Your task to perform on an android device: Toggle the flashlight Image 0: 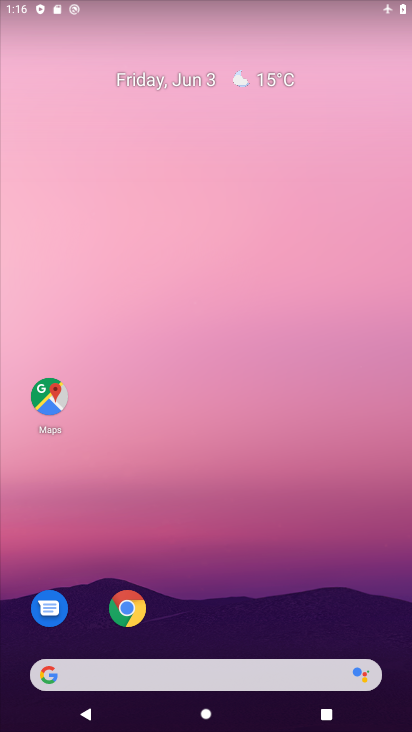
Step 0: drag from (278, 568) to (173, 136)
Your task to perform on an android device: Toggle the flashlight Image 1: 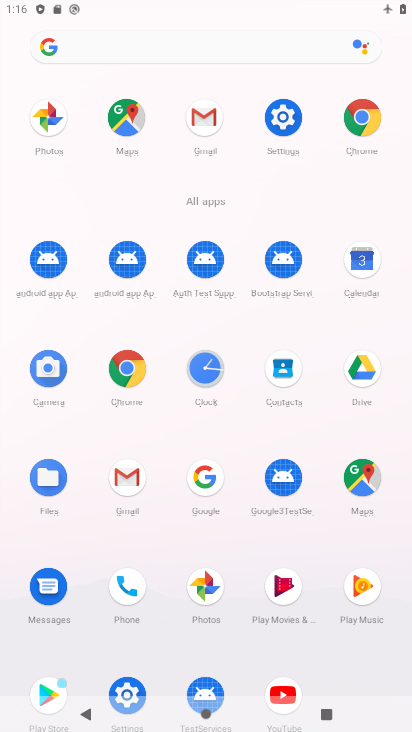
Step 1: click (283, 116)
Your task to perform on an android device: Toggle the flashlight Image 2: 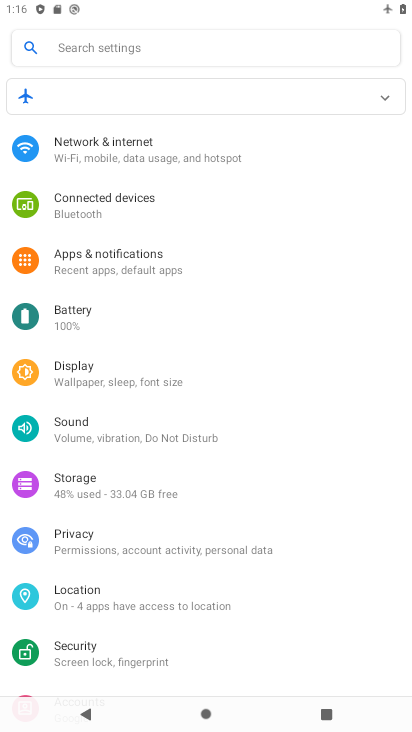
Step 2: click (80, 364)
Your task to perform on an android device: Toggle the flashlight Image 3: 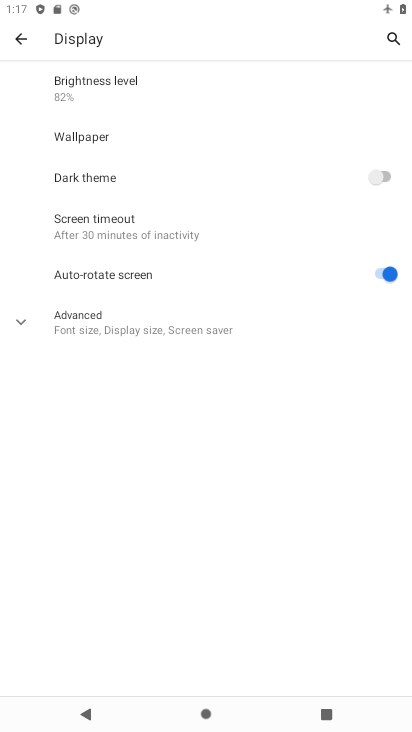
Step 3: task complete